Your task to perform on an android device: turn on location history Image 0: 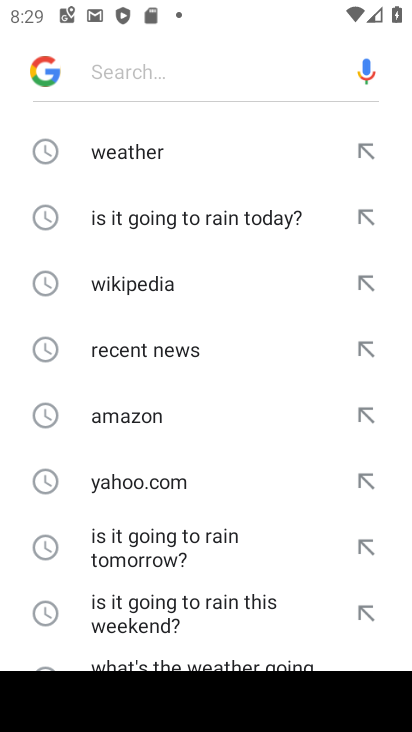
Step 0: press home button
Your task to perform on an android device: turn on location history Image 1: 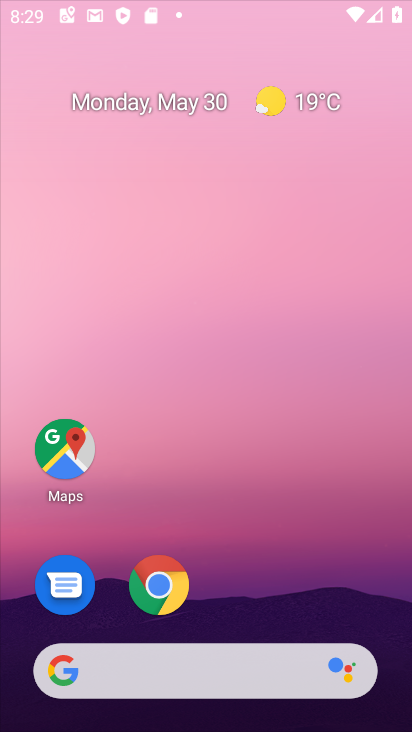
Step 1: drag from (146, 589) to (364, 32)
Your task to perform on an android device: turn on location history Image 2: 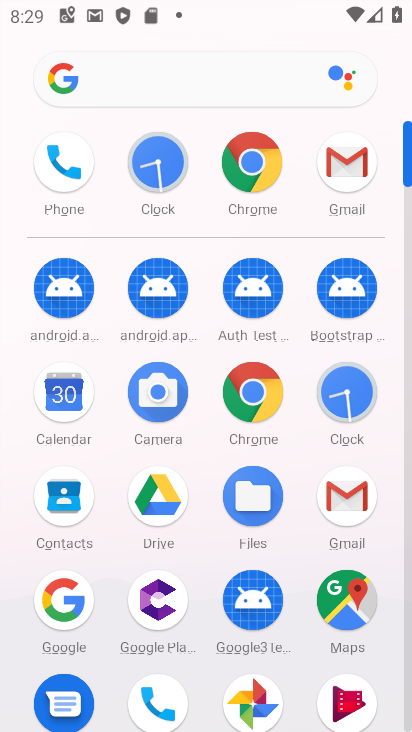
Step 2: drag from (209, 557) to (253, 227)
Your task to perform on an android device: turn on location history Image 3: 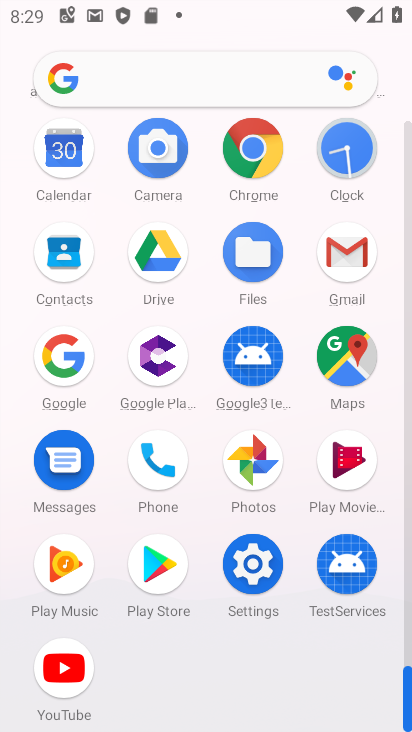
Step 3: click (255, 586)
Your task to perform on an android device: turn on location history Image 4: 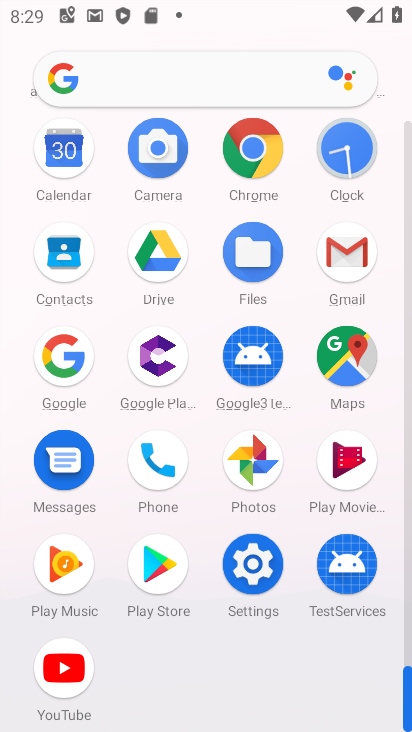
Step 4: click (255, 583)
Your task to perform on an android device: turn on location history Image 5: 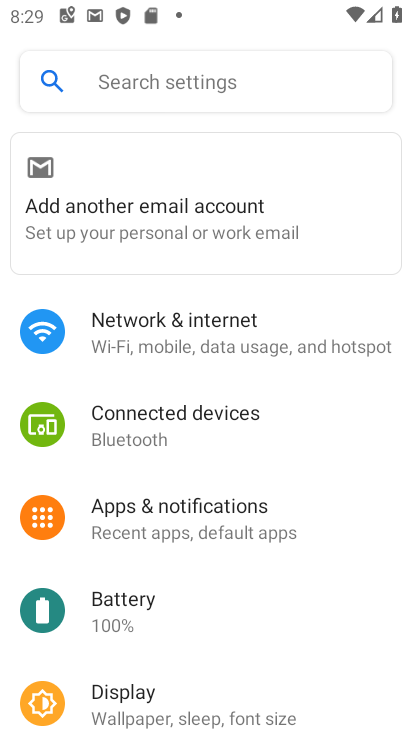
Step 5: drag from (232, 633) to (371, 16)
Your task to perform on an android device: turn on location history Image 6: 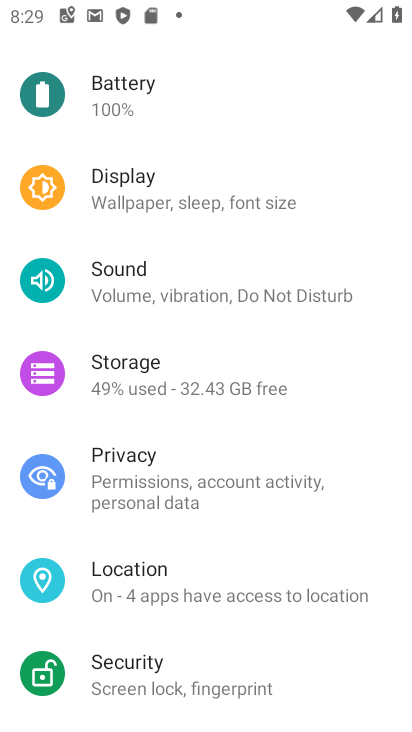
Step 6: click (176, 601)
Your task to perform on an android device: turn on location history Image 7: 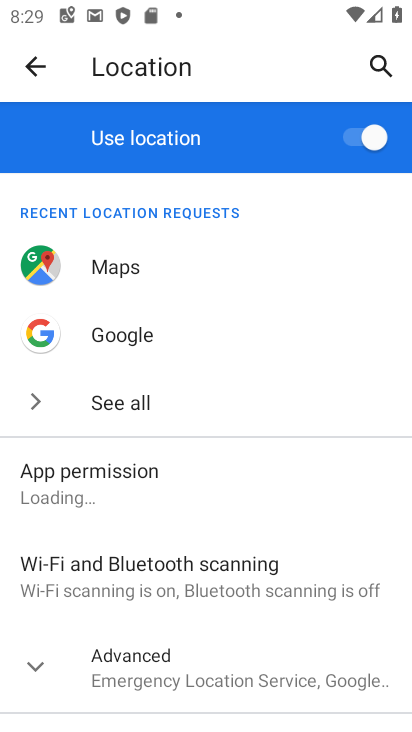
Step 7: click (137, 661)
Your task to perform on an android device: turn on location history Image 8: 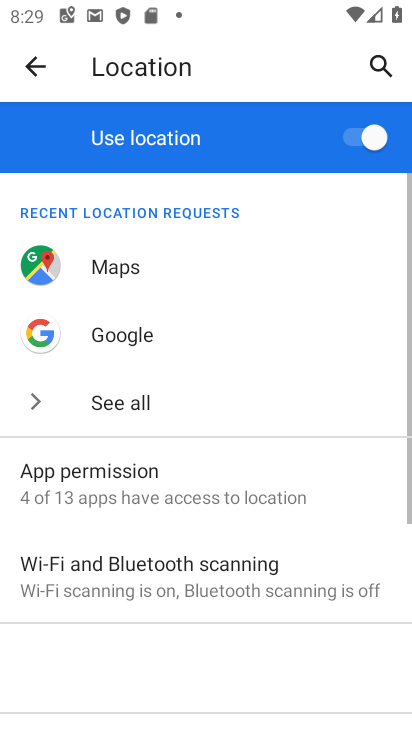
Step 8: drag from (166, 601) to (311, 128)
Your task to perform on an android device: turn on location history Image 9: 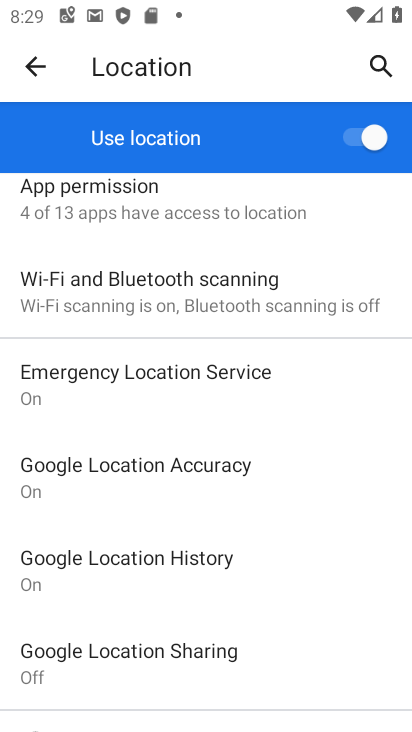
Step 9: click (176, 552)
Your task to perform on an android device: turn on location history Image 10: 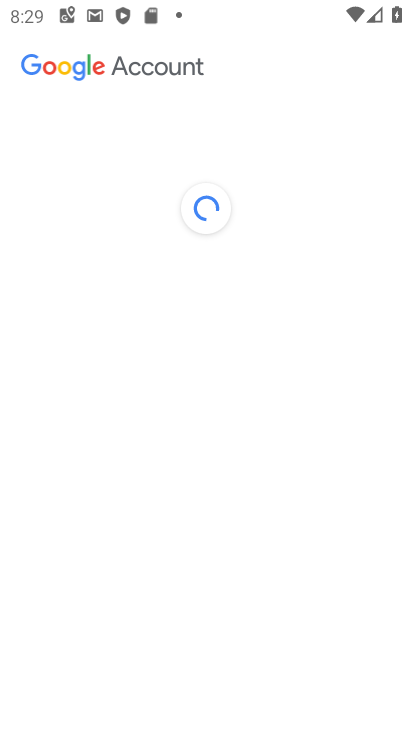
Step 10: task complete